Your task to perform on an android device: open chrome privacy settings Image 0: 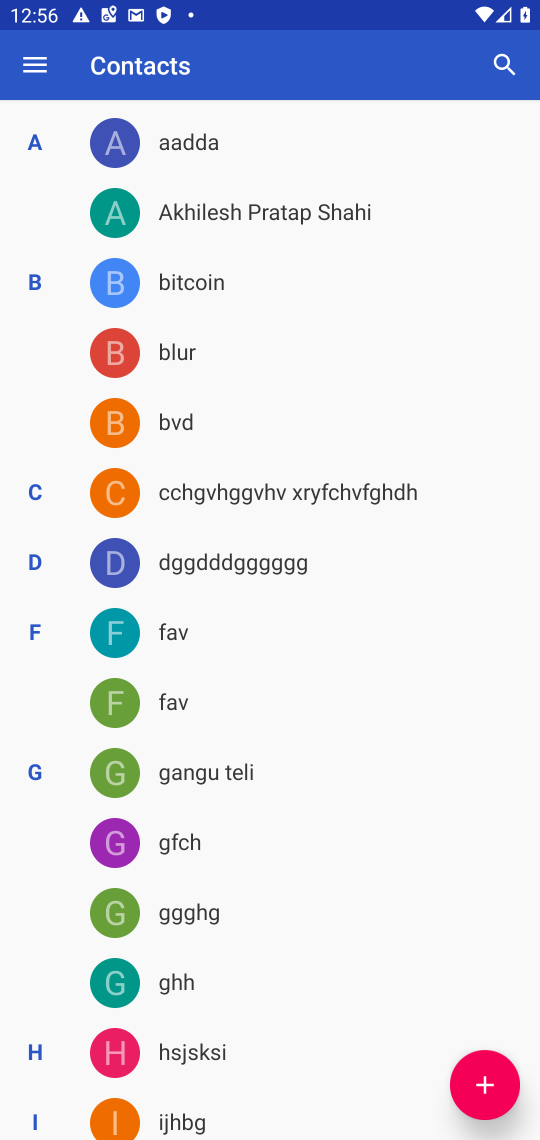
Step 0: press home button
Your task to perform on an android device: open chrome privacy settings Image 1: 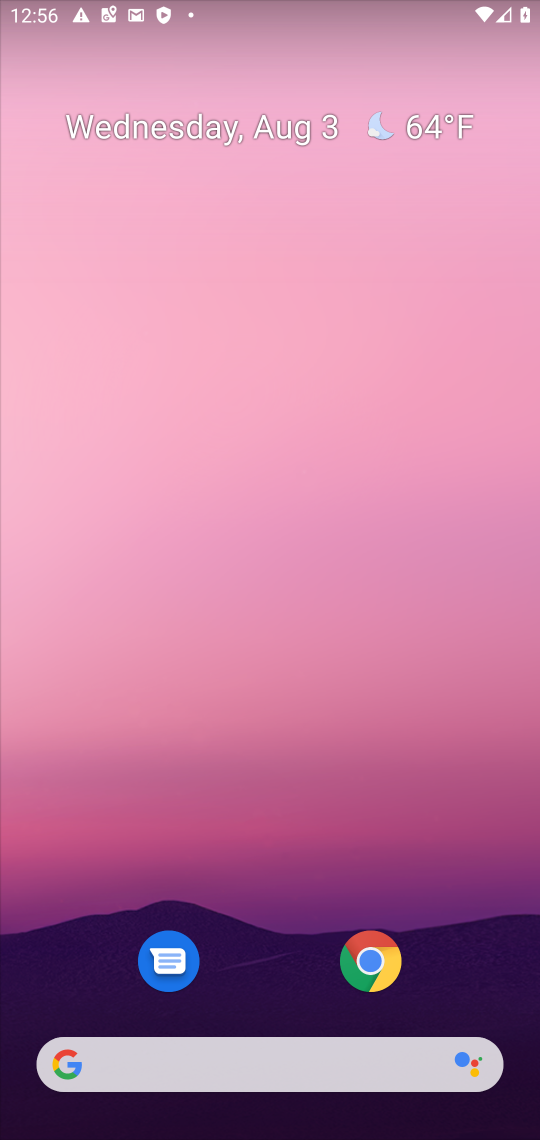
Step 1: click (372, 971)
Your task to perform on an android device: open chrome privacy settings Image 2: 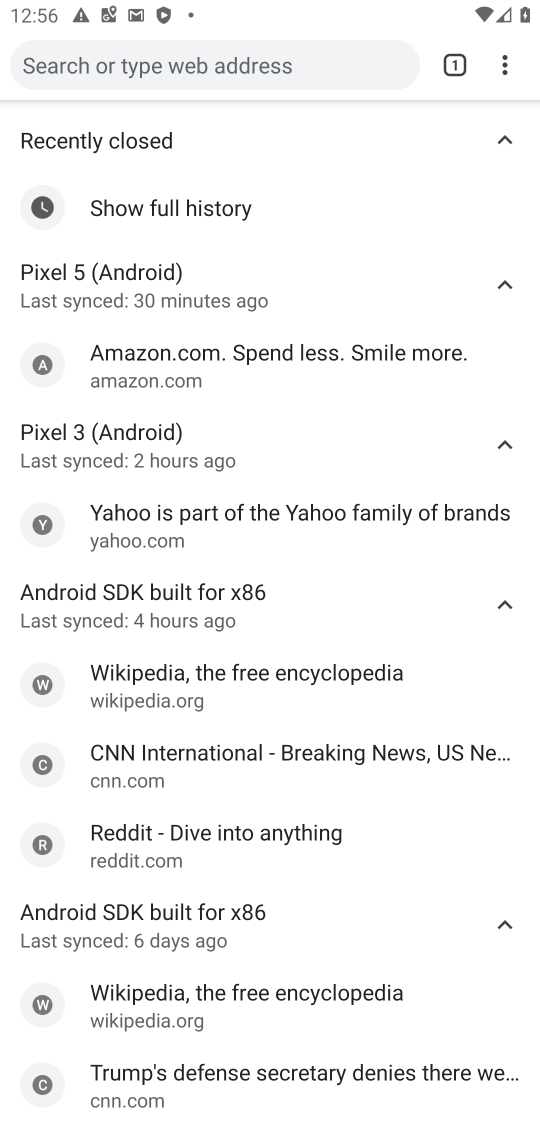
Step 2: drag from (510, 60) to (315, 541)
Your task to perform on an android device: open chrome privacy settings Image 3: 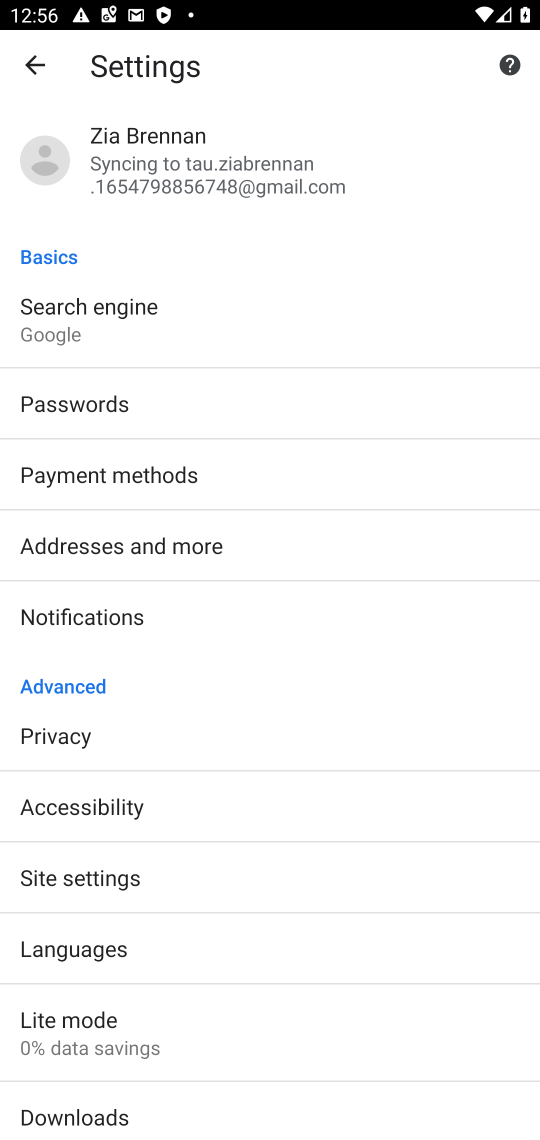
Step 3: click (78, 742)
Your task to perform on an android device: open chrome privacy settings Image 4: 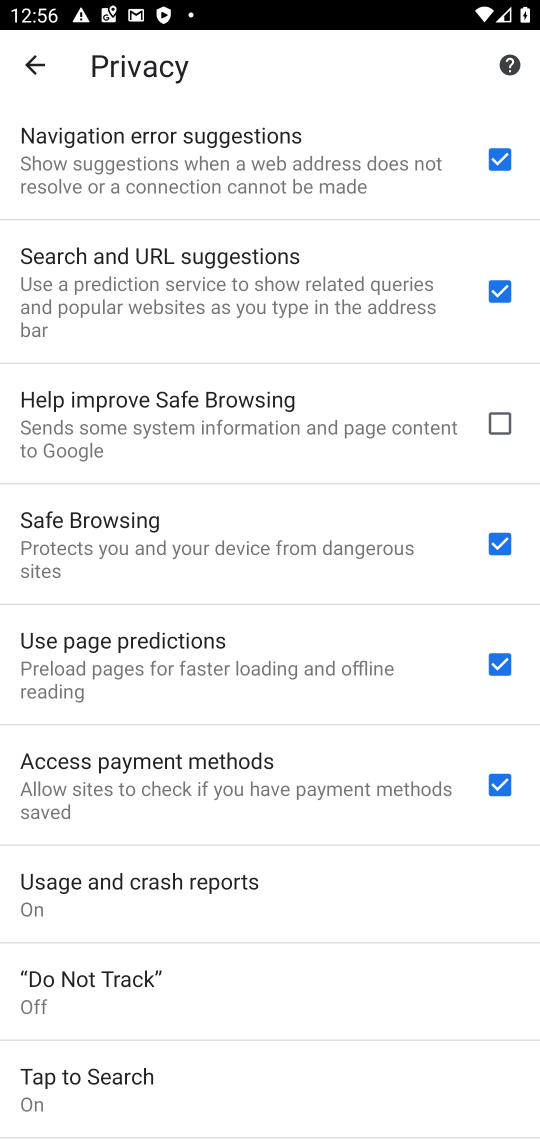
Step 4: task complete